Your task to perform on an android device: allow notifications from all sites in the chrome app Image 0: 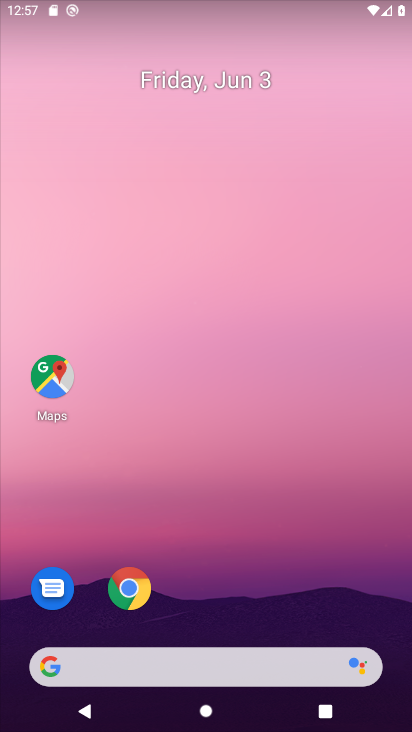
Step 0: drag from (289, 623) to (227, 153)
Your task to perform on an android device: allow notifications from all sites in the chrome app Image 1: 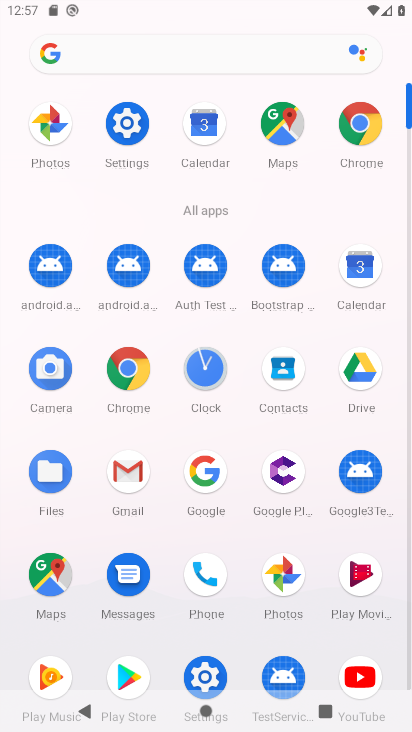
Step 1: click (366, 140)
Your task to perform on an android device: allow notifications from all sites in the chrome app Image 2: 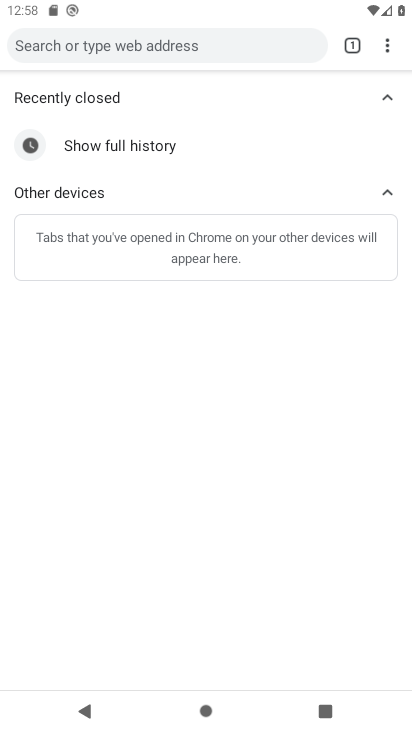
Step 2: click (398, 55)
Your task to perform on an android device: allow notifications from all sites in the chrome app Image 3: 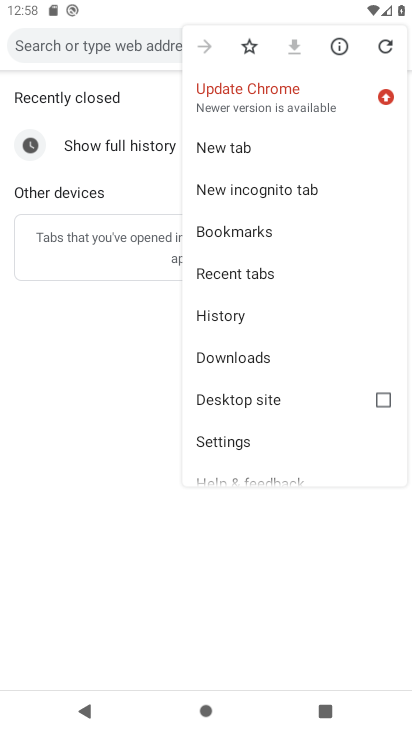
Step 3: click (252, 445)
Your task to perform on an android device: allow notifications from all sites in the chrome app Image 4: 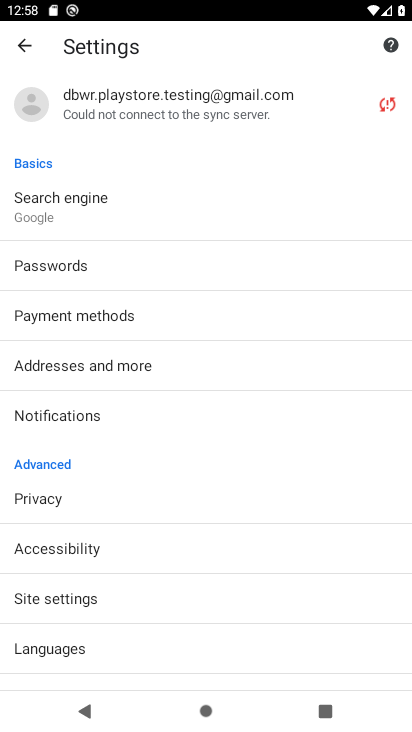
Step 4: drag from (203, 618) to (206, 347)
Your task to perform on an android device: allow notifications from all sites in the chrome app Image 5: 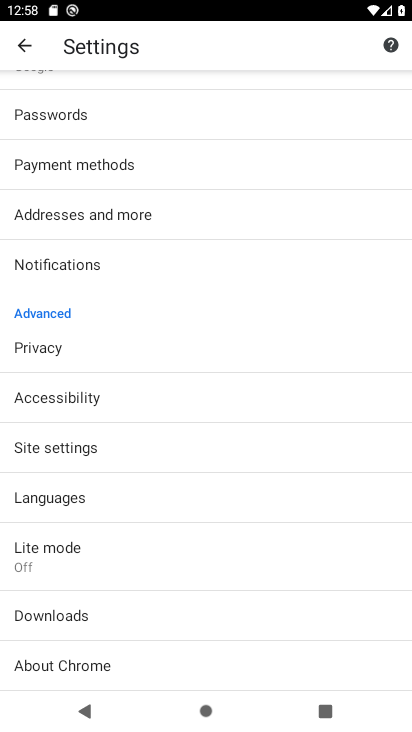
Step 5: click (100, 438)
Your task to perform on an android device: allow notifications from all sites in the chrome app Image 6: 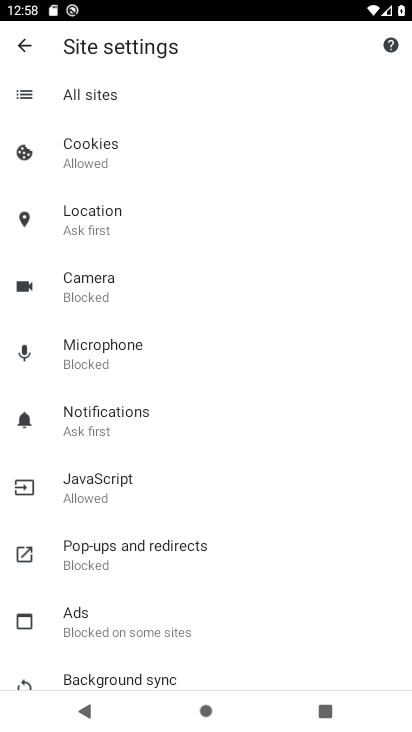
Step 6: click (155, 425)
Your task to perform on an android device: allow notifications from all sites in the chrome app Image 7: 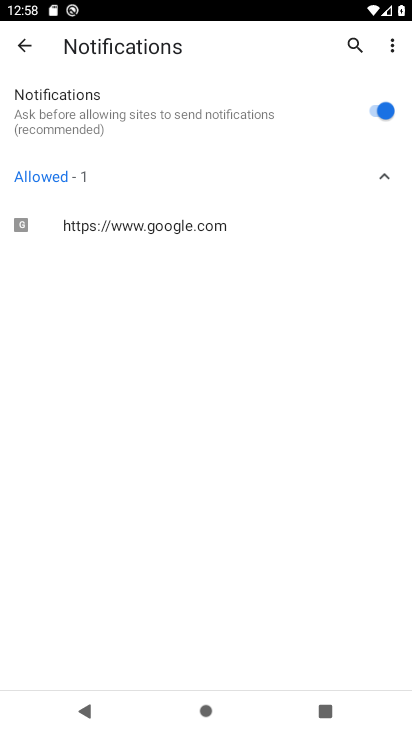
Step 7: task complete